Your task to perform on an android device: change the clock display to show seconds Image 0: 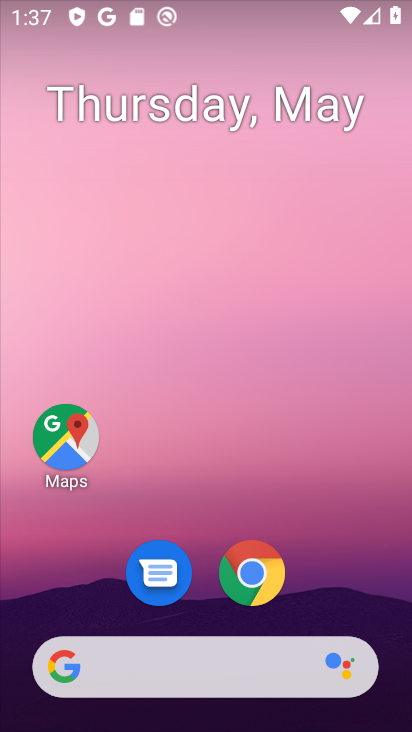
Step 0: drag from (324, 454) to (328, 314)
Your task to perform on an android device: change the clock display to show seconds Image 1: 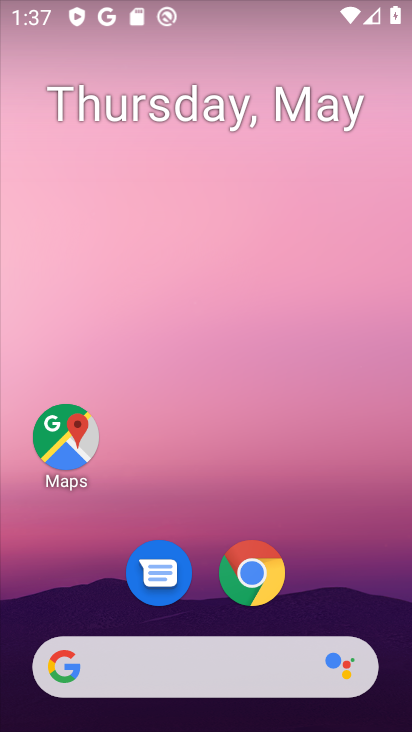
Step 1: drag from (324, 376) to (324, 264)
Your task to perform on an android device: change the clock display to show seconds Image 2: 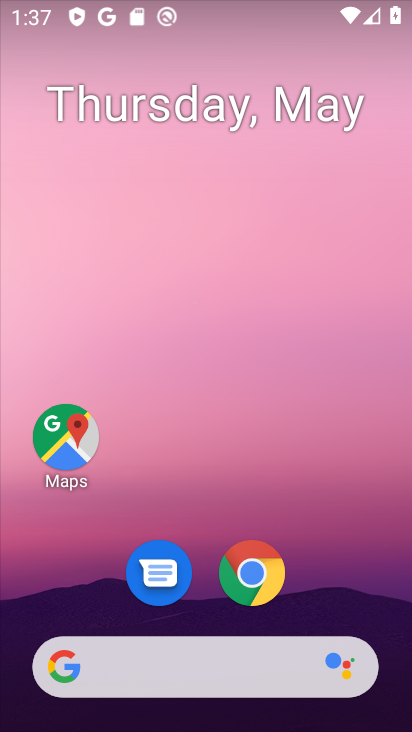
Step 2: drag from (332, 569) to (300, 246)
Your task to perform on an android device: change the clock display to show seconds Image 3: 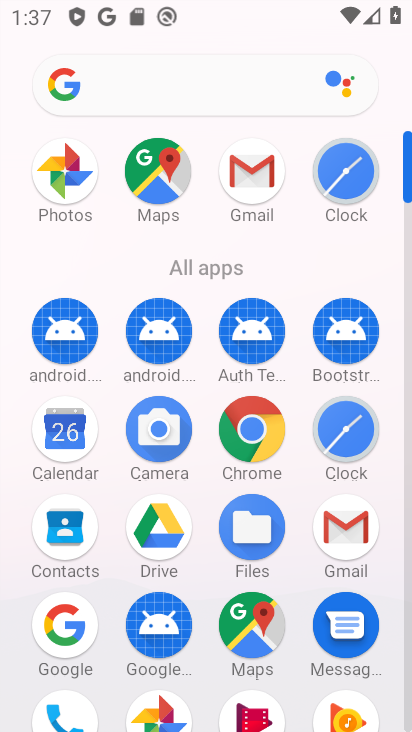
Step 3: click (339, 418)
Your task to perform on an android device: change the clock display to show seconds Image 4: 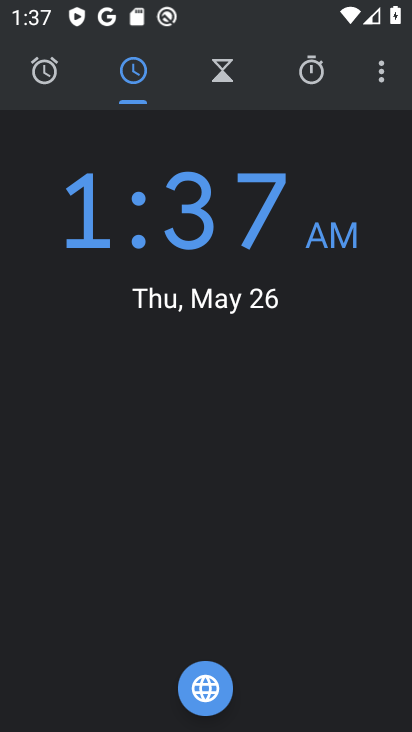
Step 4: click (386, 69)
Your task to perform on an android device: change the clock display to show seconds Image 5: 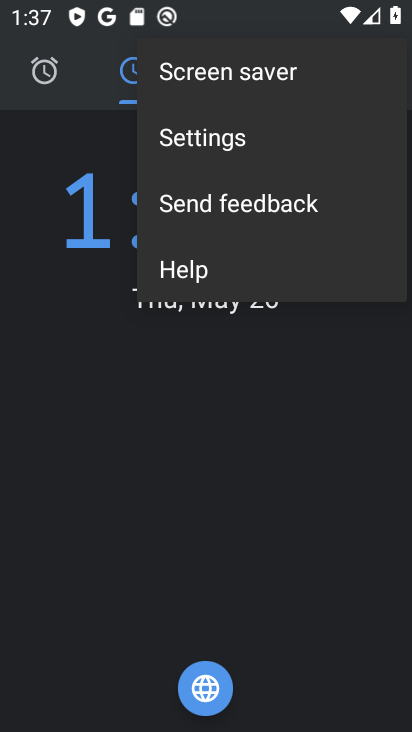
Step 5: click (238, 136)
Your task to perform on an android device: change the clock display to show seconds Image 6: 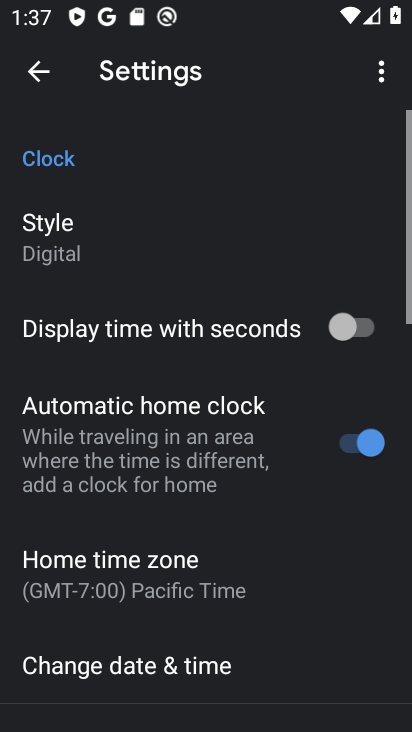
Step 6: click (343, 329)
Your task to perform on an android device: change the clock display to show seconds Image 7: 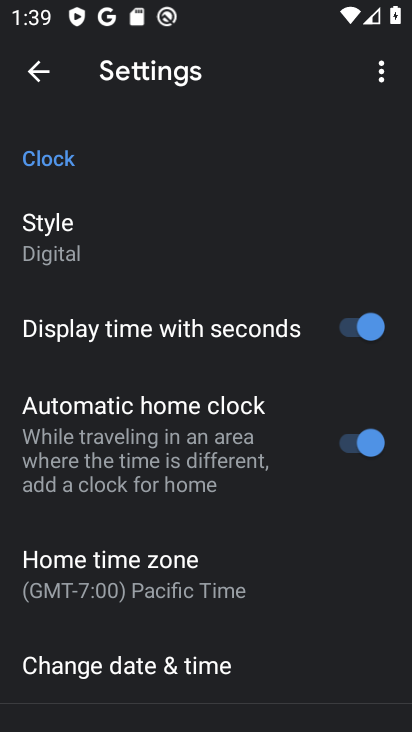
Step 7: task complete